Your task to perform on an android device: refresh tabs in the chrome app Image 0: 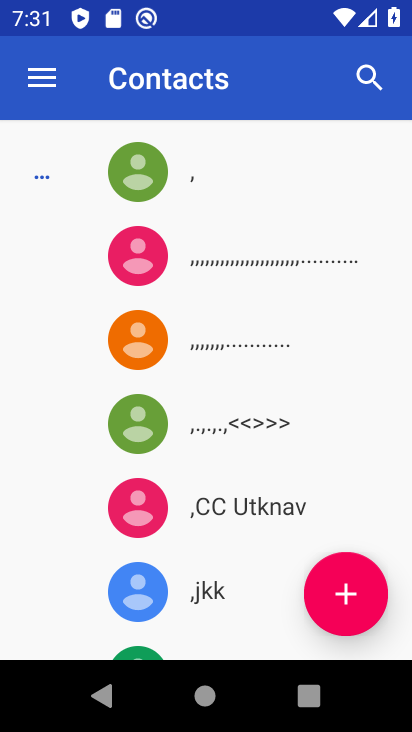
Step 0: press home button
Your task to perform on an android device: refresh tabs in the chrome app Image 1: 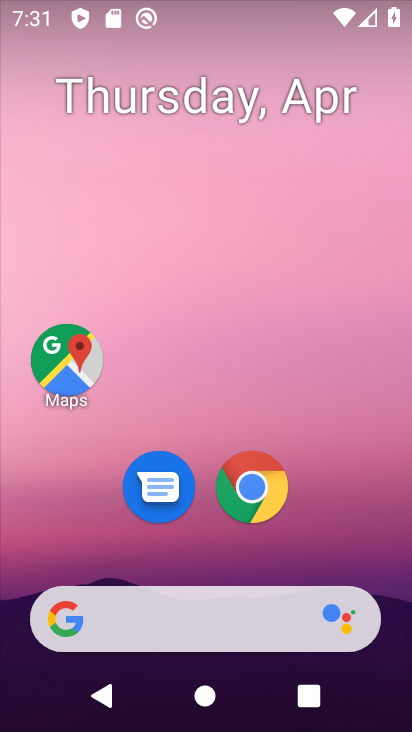
Step 1: drag from (347, 547) to (240, 119)
Your task to perform on an android device: refresh tabs in the chrome app Image 2: 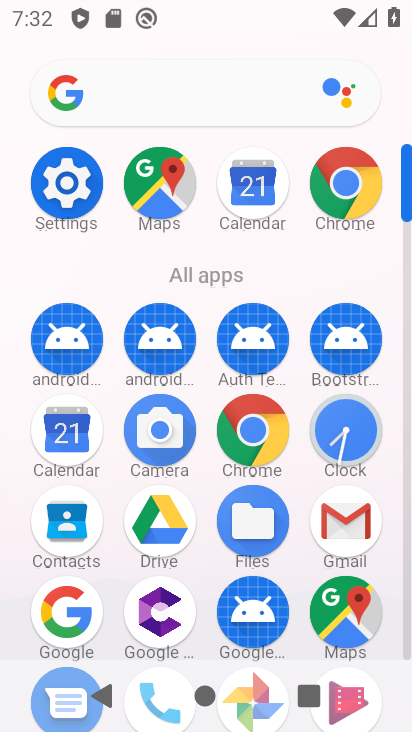
Step 2: click (343, 190)
Your task to perform on an android device: refresh tabs in the chrome app Image 3: 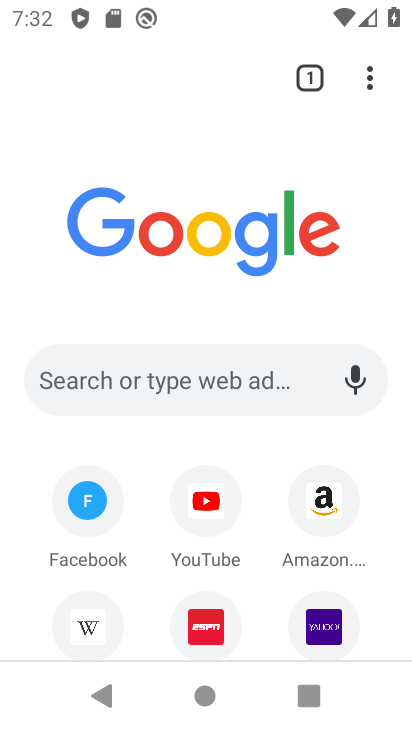
Step 3: click (378, 74)
Your task to perform on an android device: refresh tabs in the chrome app Image 4: 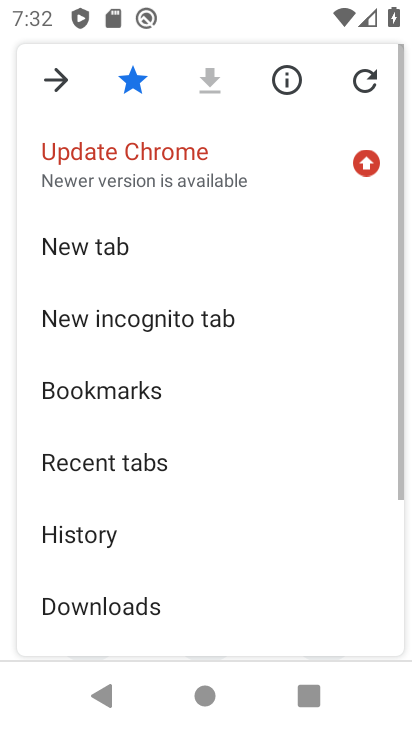
Step 4: click (378, 74)
Your task to perform on an android device: refresh tabs in the chrome app Image 5: 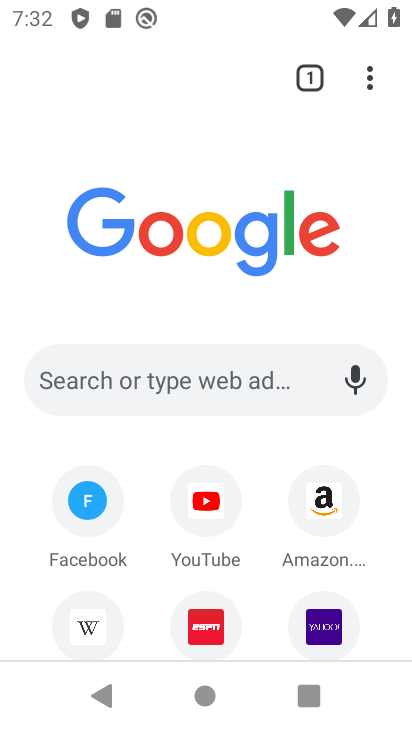
Step 5: task complete